Your task to perform on an android device: Set the phone to "Do not disturb". Image 0: 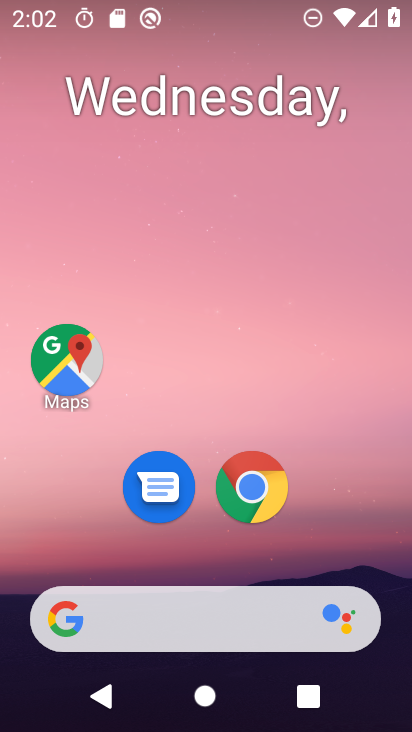
Step 0: drag from (181, 3) to (160, 596)
Your task to perform on an android device: Set the phone to "Do not disturb". Image 1: 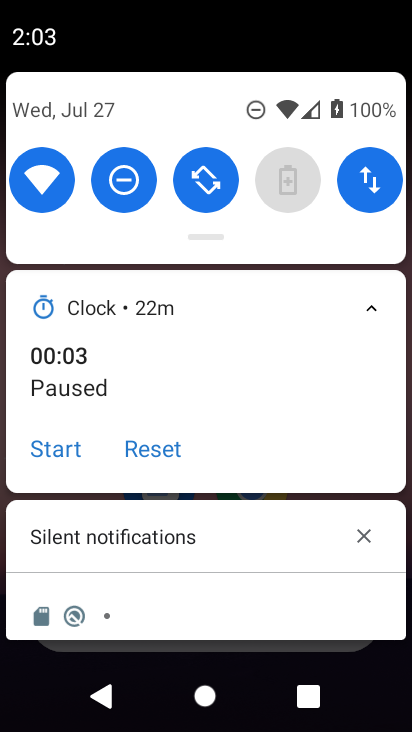
Step 1: task complete